Your task to perform on an android device: Open Amazon Image 0: 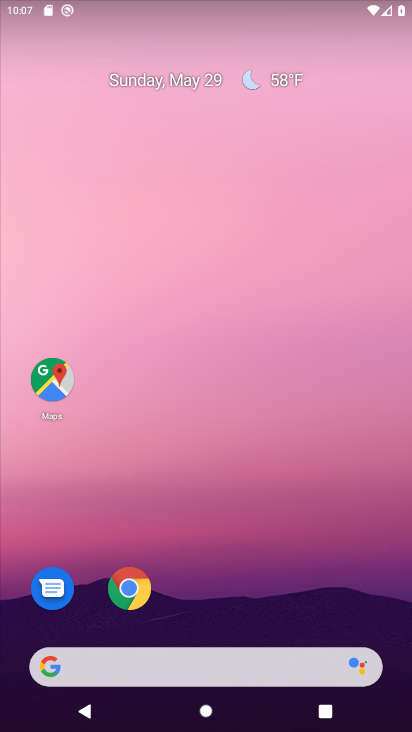
Step 0: drag from (315, 705) to (288, 236)
Your task to perform on an android device: Open Amazon Image 1: 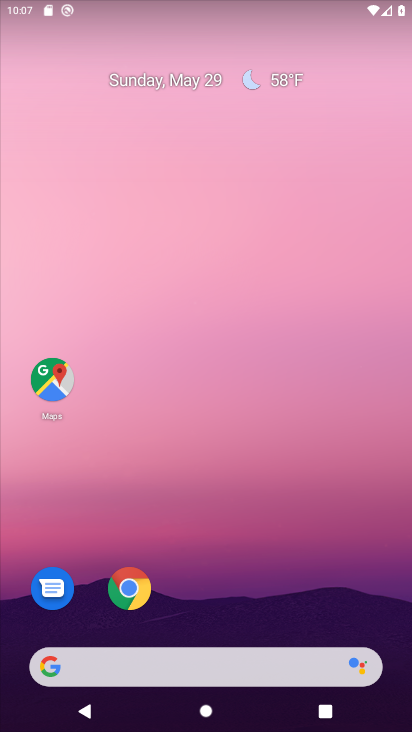
Step 1: drag from (232, 687) to (173, 419)
Your task to perform on an android device: Open Amazon Image 2: 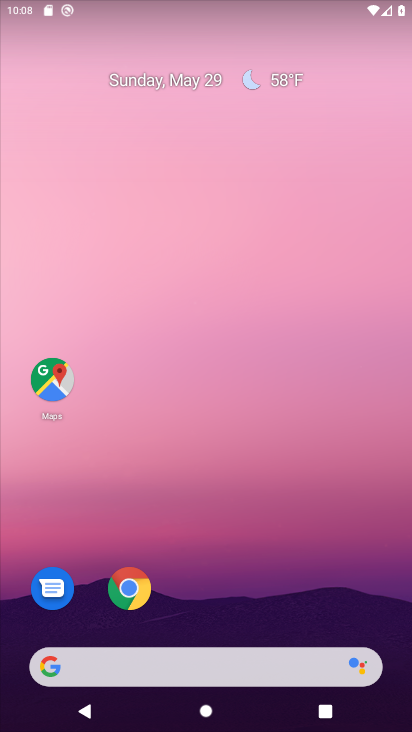
Step 2: drag from (283, 686) to (226, 332)
Your task to perform on an android device: Open Amazon Image 3: 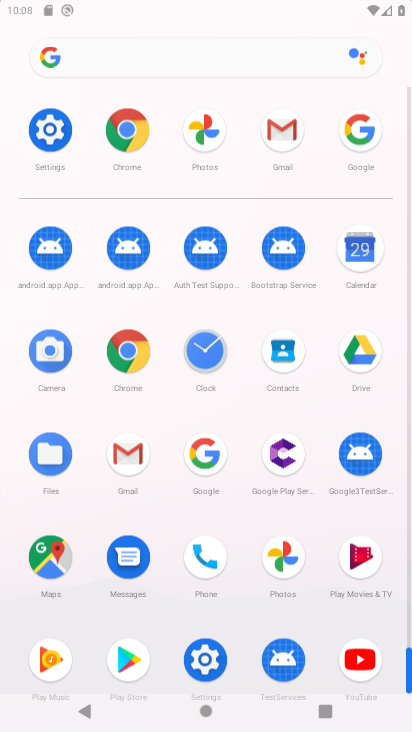
Step 3: drag from (284, 600) to (212, 197)
Your task to perform on an android device: Open Amazon Image 4: 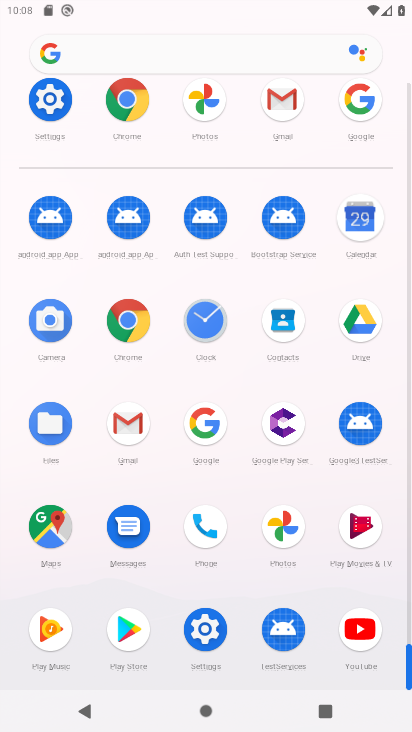
Step 4: click (131, 317)
Your task to perform on an android device: Open Amazon Image 5: 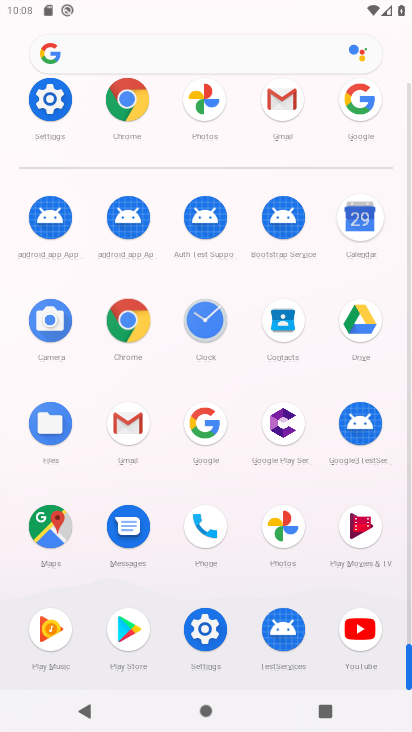
Step 5: click (131, 316)
Your task to perform on an android device: Open Amazon Image 6: 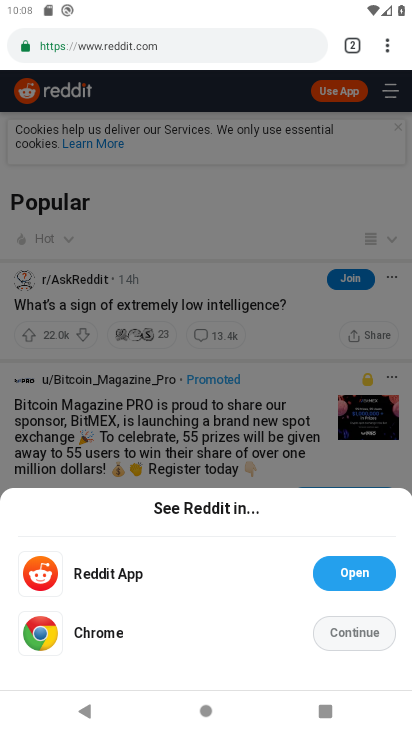
Step 6: click (389, 48)
Your task to perform on an android device: Open Amazon Image 7: 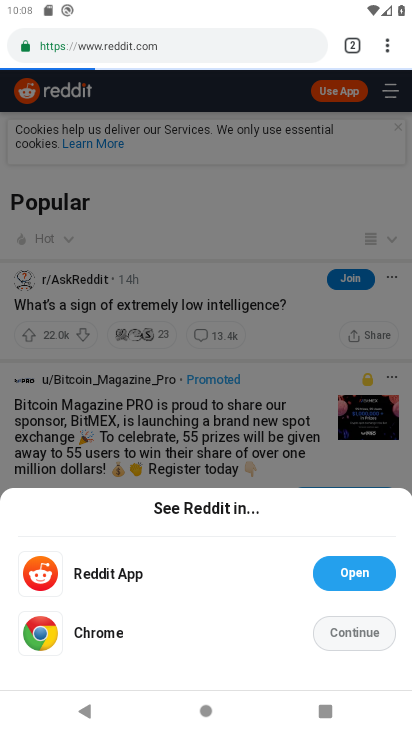
Step 7: click (395, 62)
Your task to perform on an android device: Open Amazon Image 8: 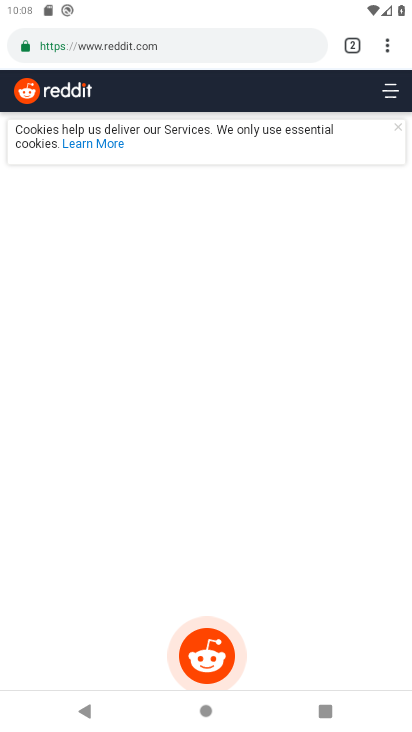
Step 8: drag from (384, 47) to (215, 89)
Your task to perform on an android device: Open Amazon Image 9: 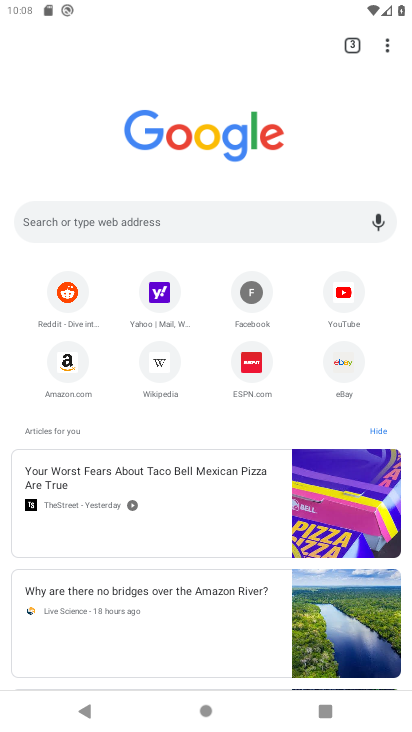
Step 9: click (62, 357)
Your task to perform on an android device: Open Amazon Image 10: 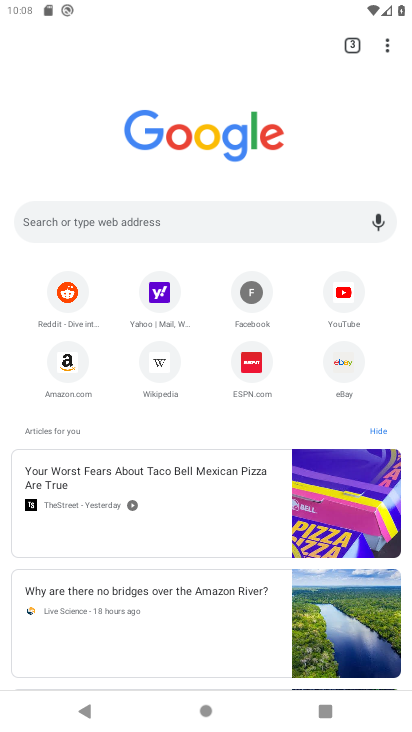
Step 10: click (65, 353)
Your task to perform on an android device: Open Amazon Image 11: 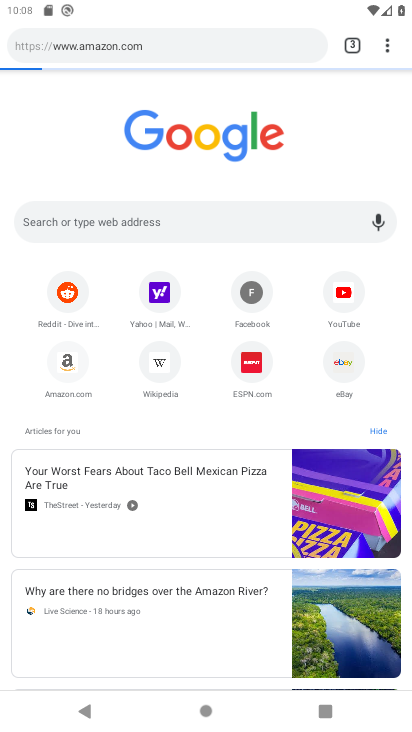
Step 11: click (66, 352)
Your task to perform on an android device: Open Amazon Image 12: 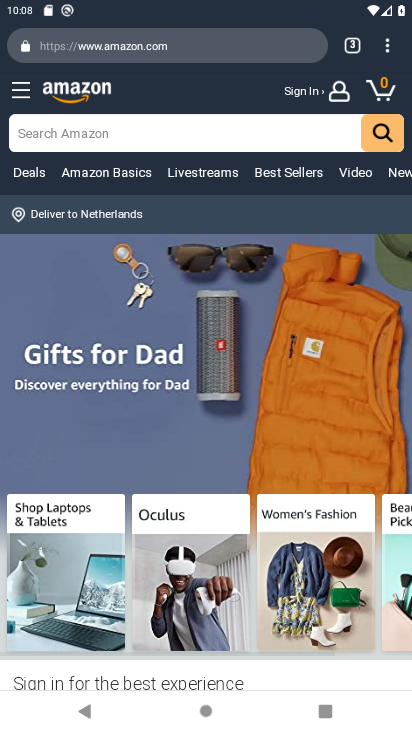
Step 12: task complete